Your task to perform on an android device: remove spam from my inbox in the gmail app Image 0: 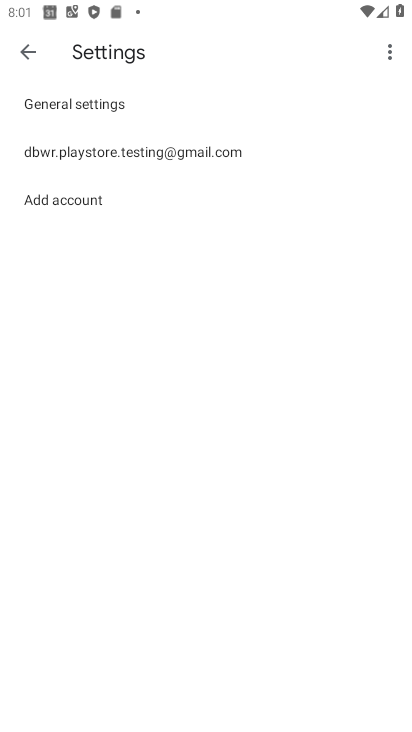
Step 0: press home button
Your task to perform on an android device: remove spam from my inbox in the gmail app Image 1: 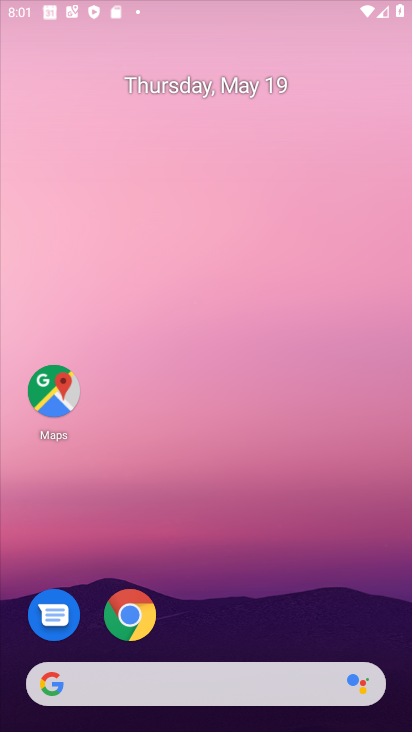
Step 1: drag from (204, 582) to (222, 91)
Your task to perform on an android device: remove spam from my inbox in the gmail app Image 2: 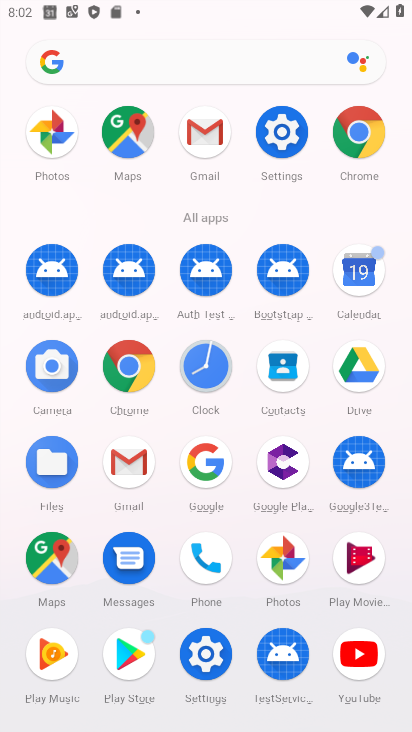
Step 2: click (126, 467)
Your task to perform on an android device: remove spam from my inbox in the gmail app Image 3: 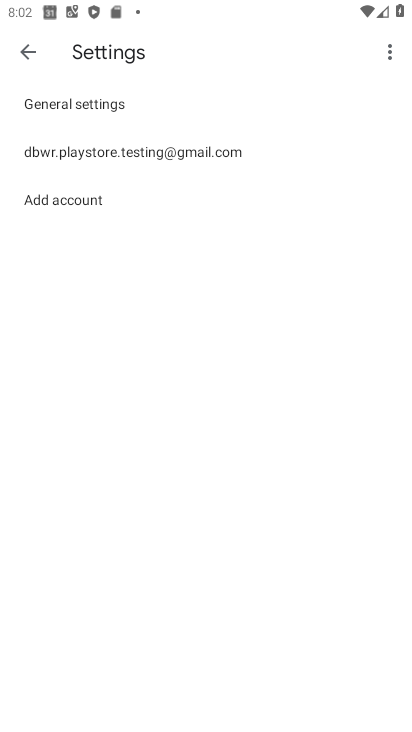
Step 3: press back button
Your task to perform on an android device: remove spam from my inbox in the gmail app Image 4: 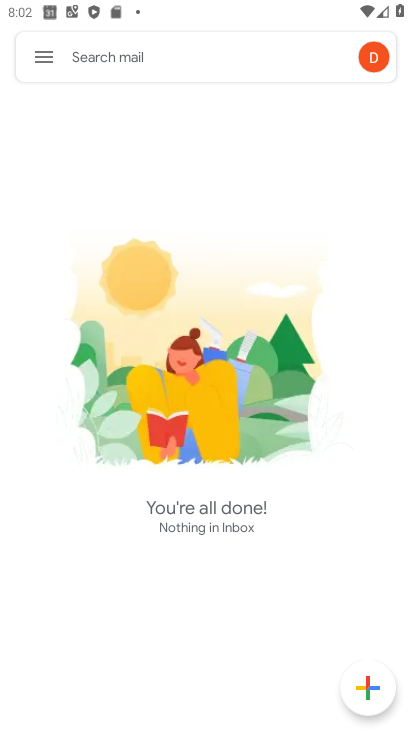
Step 4: click (48, 55)
Your task to perform on an android device: remove spam from my inbox in the gmail app Image 5: 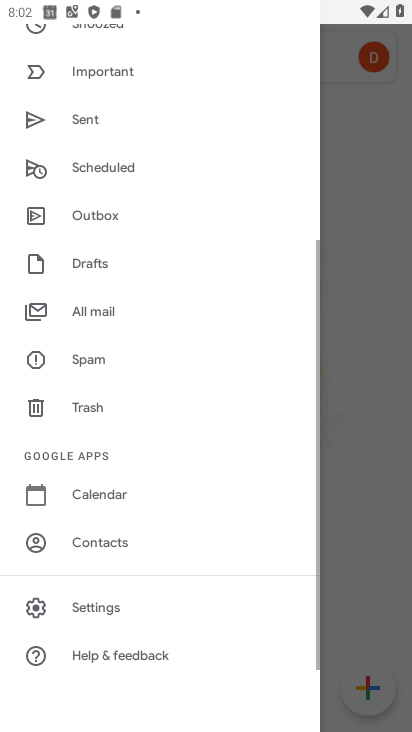
Step 5: drag from (163, 109) to (262, 580)
Your task to perform on an android device: remove spam from my inbox in the gmail app Image 6: 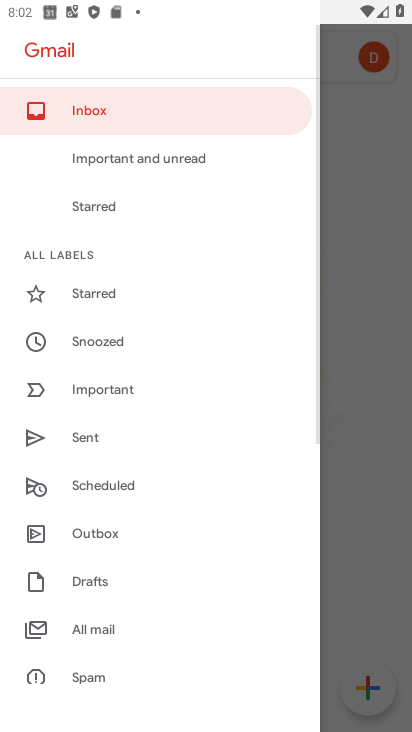
Step 6: click (148, 104)
Your task to perform on an android device: remove spam from my inbox in the gmail app Image 7: 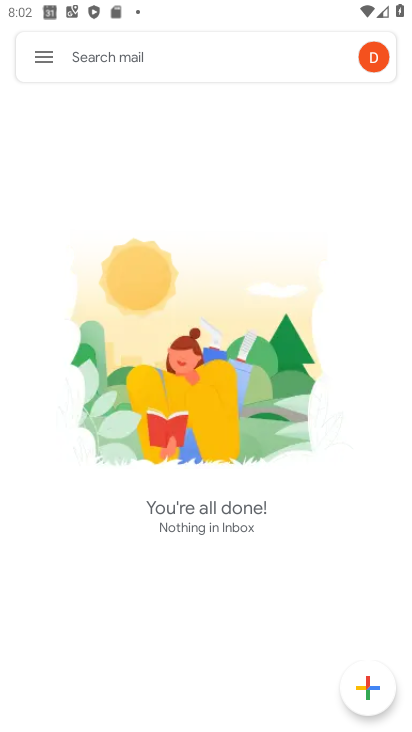
Step 7: task complete